Your task to perform on an android device: uninstall "DuckDuckGo Privacy Browser" Image 0: 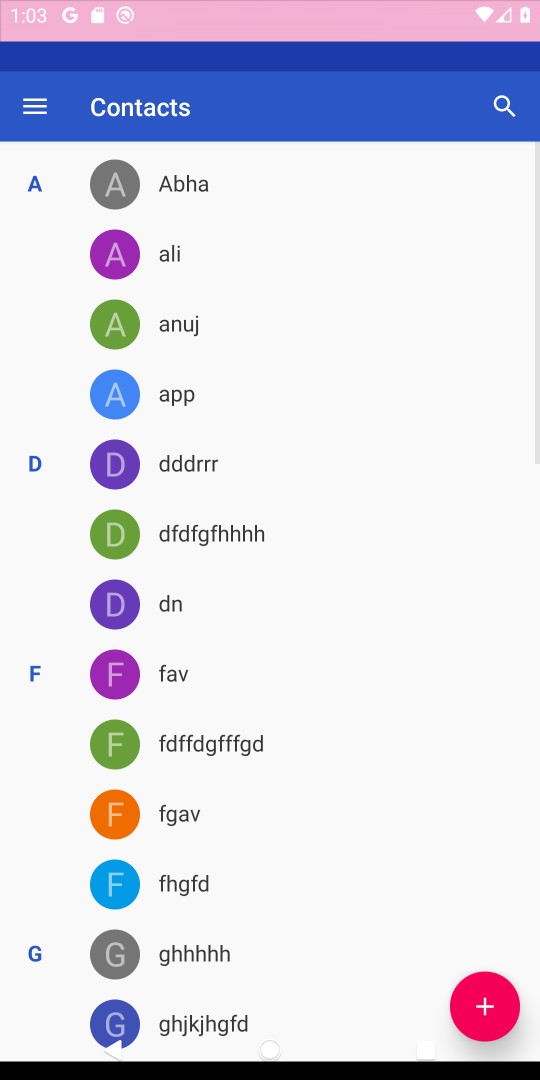
Step 0: press home button
Your task to perform on an android device: uninstall "DuckDuckGo Privacy Browser" Image 1: 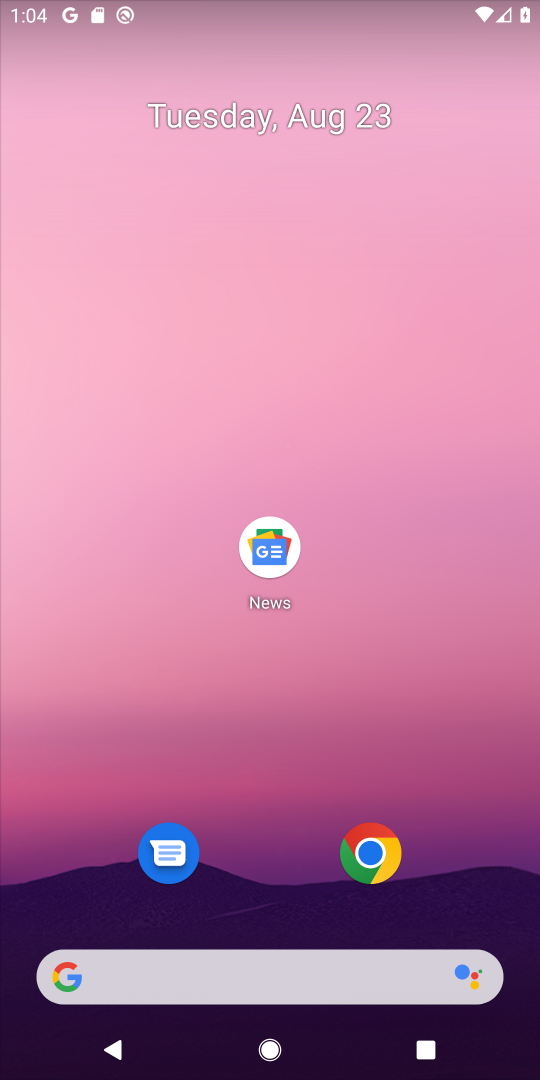
Step 1: click (292, 124)
Your task to perform on an android device: uninstall "DuckDuckGo Privacy Browser" Image 2: 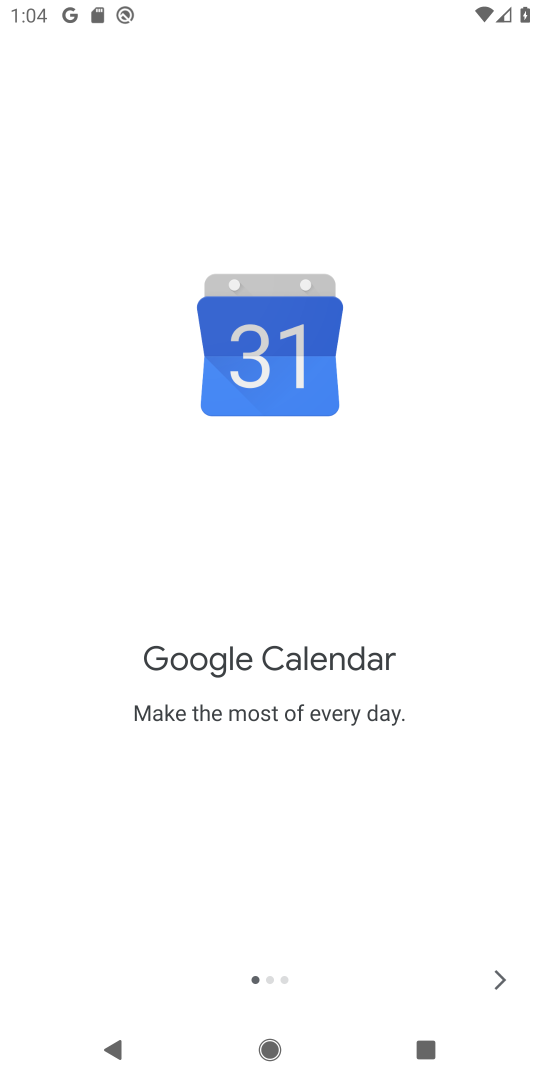
Step 2: press home button
Your task to perform on an android device: uninstall "DuckDuckGo Privacy Browser" Image 3: 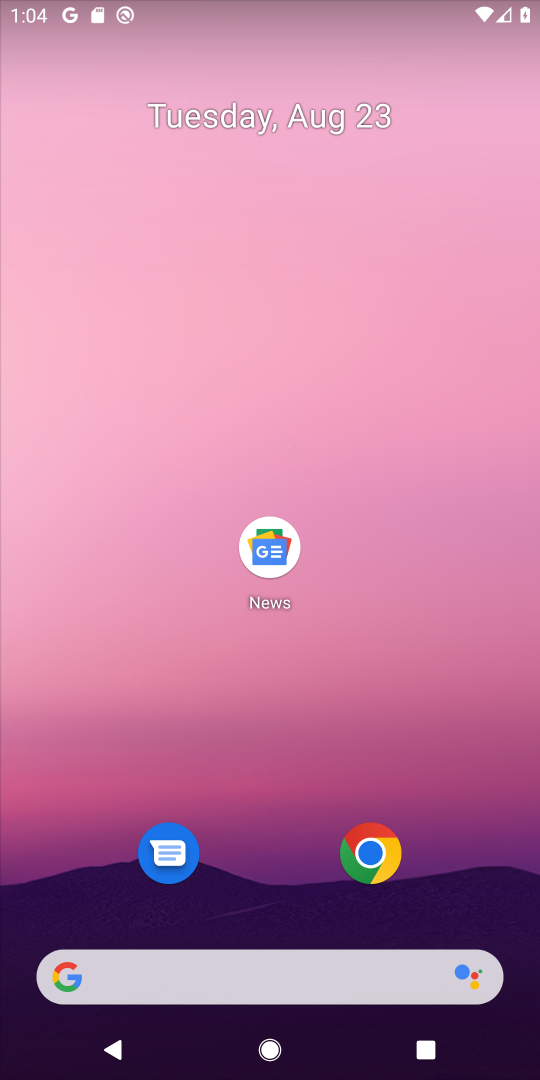
Step 3: drag from (504, 929) to (389, 81)
Your task to perform on an android device: uninstall "DuckDuckGo Privacy Browser" Image 4: 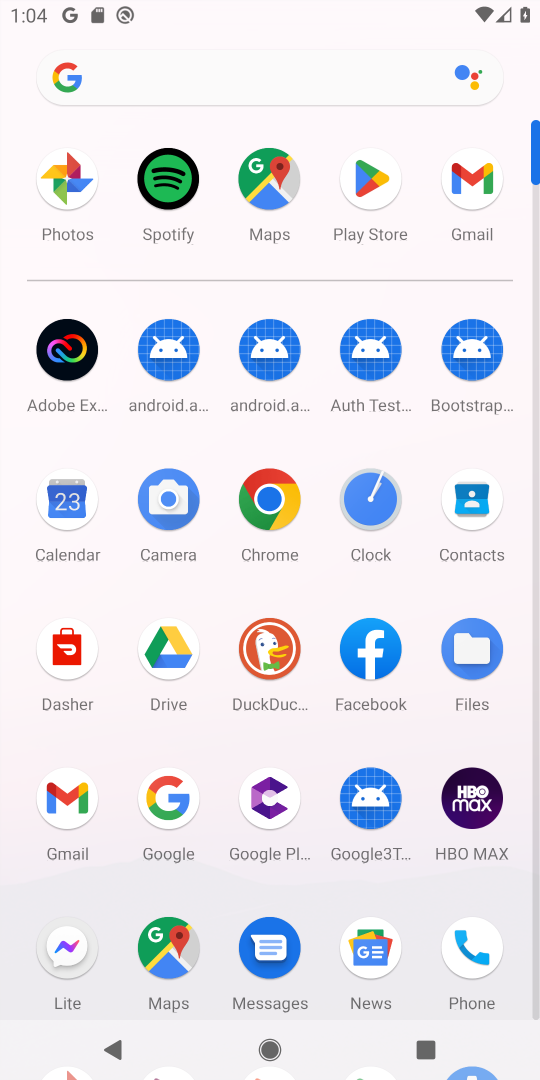
Step 4: drag from (317, 895) to (309, 424)
Your task to perform on an android device: uninstall "DuckDuckGo Privacy Browser" Image 5: 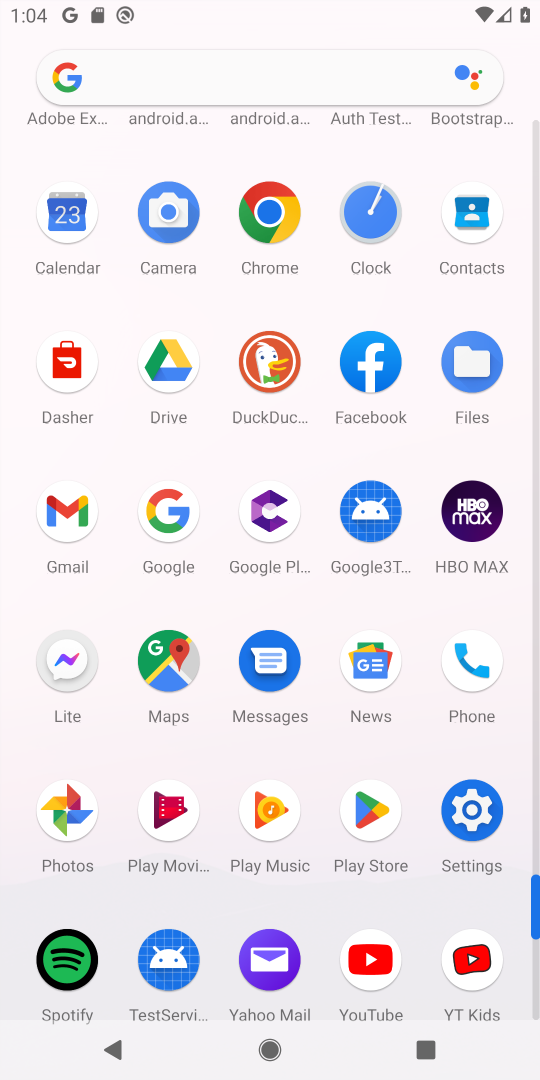
Step 5: drag from (319, 885) to (302, 514)
Your task to perform on an android device: uninstall "DuckDuckGo Privacy Browser" Image 6: 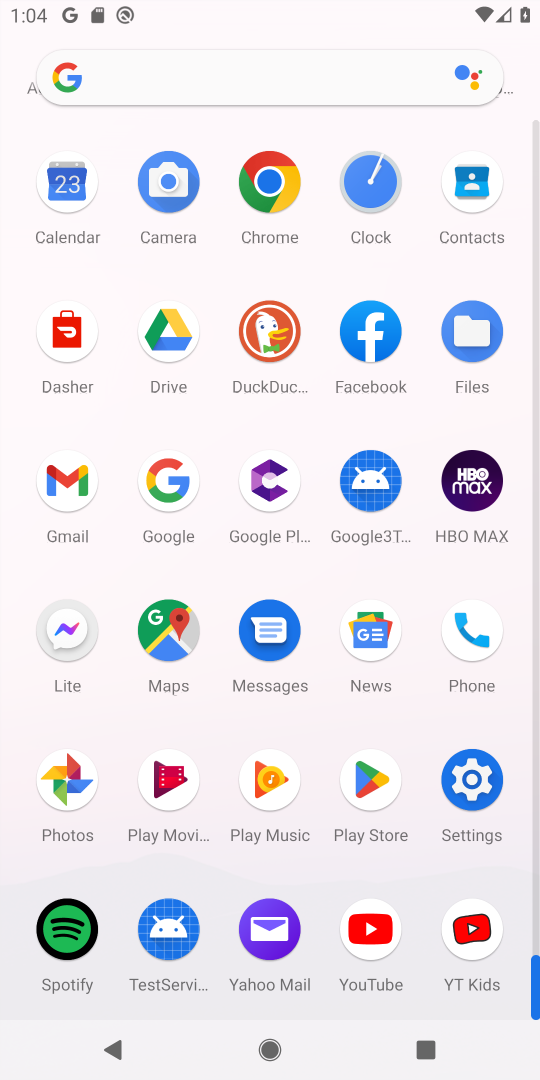
Step 6: click (371, 781)
Your task to perform on an android device: uninstall "DuckDuckGo Privacy Browser" Image 7: 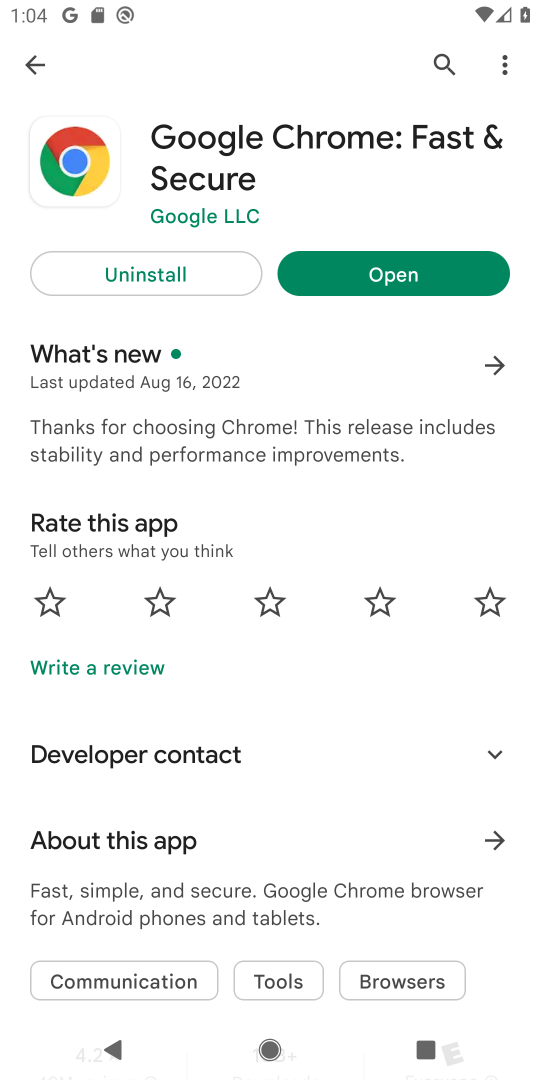
Step 7: click (438, 61)
Your task to perform on an android device: uninstall "DuckDuckGo Privacy Browser" Image 8: 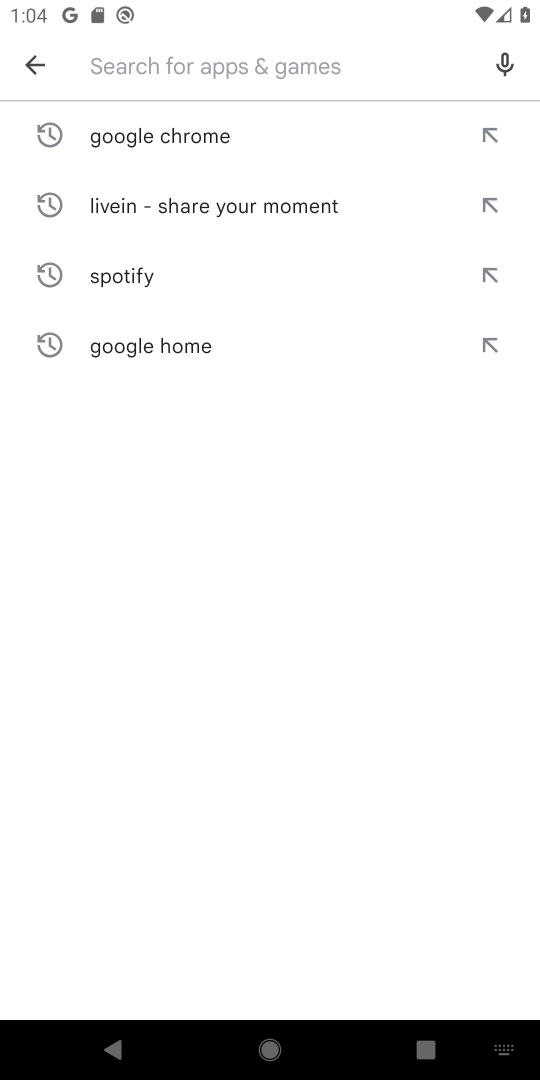
Step 8: type "DuckDuckGo Privacy Browser"
Your task to perform on an android device: uninstall "DuckDuckGo Privacy Browser" Image 9: 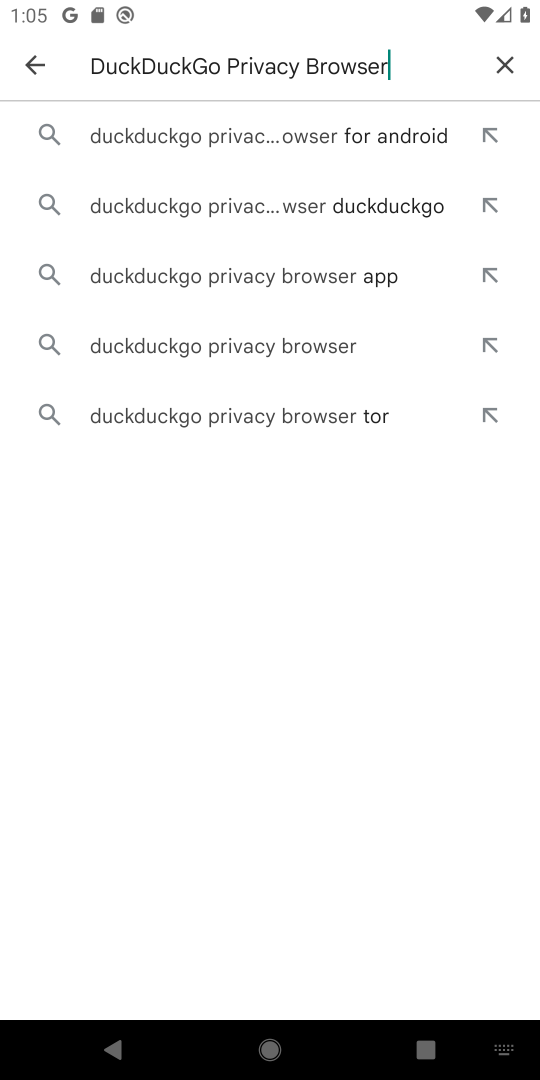
Step 9: click (177, 132)
Your task to perform on an android device: uninstall "DuckDuckGo Privacy Browser" Image 10: 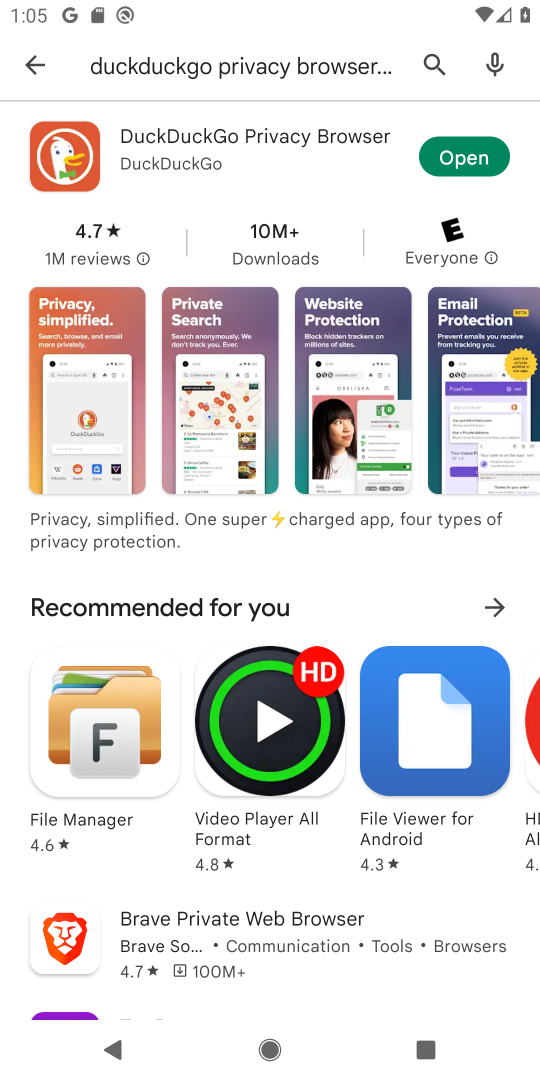
Step 10: click (190, 143)
Your task to perform on an android device: uninstall "DuckDuckGo Privacy Browser" Image 11: 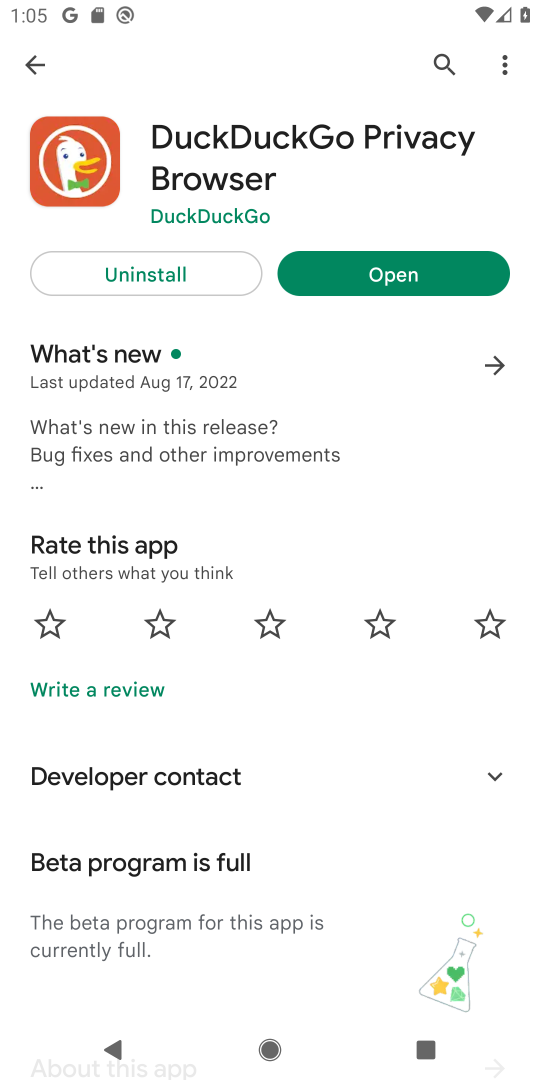
Step 11: click (141, 275)
Your task to perform on an android device: uninstall "DuckDuckGo Privacy Browser" Image 12: 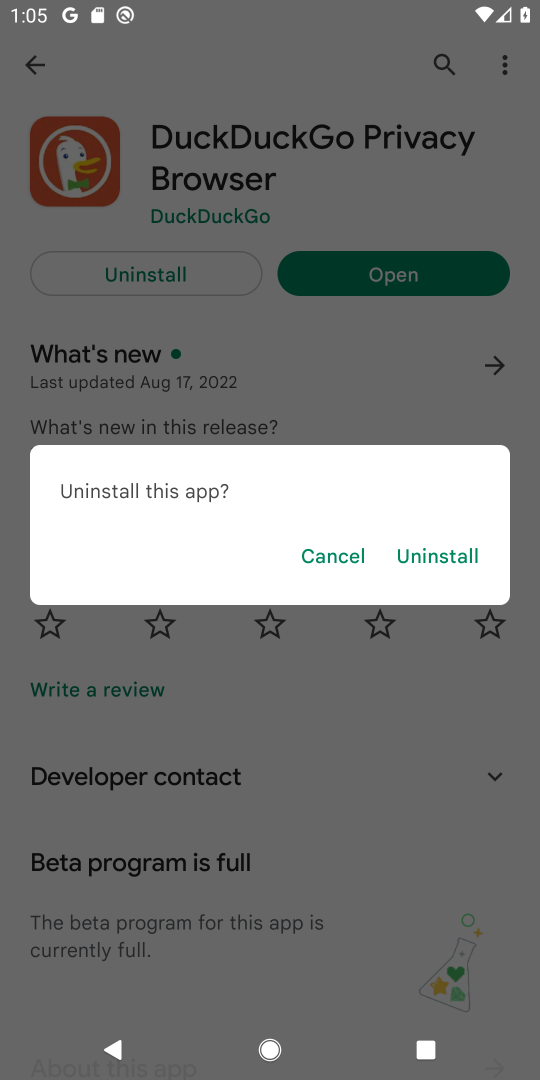
Step 12: click (433, 552)
Your task to perform on an android device: uninstall "DuckDuckGo Privacy Browser" Image 13: 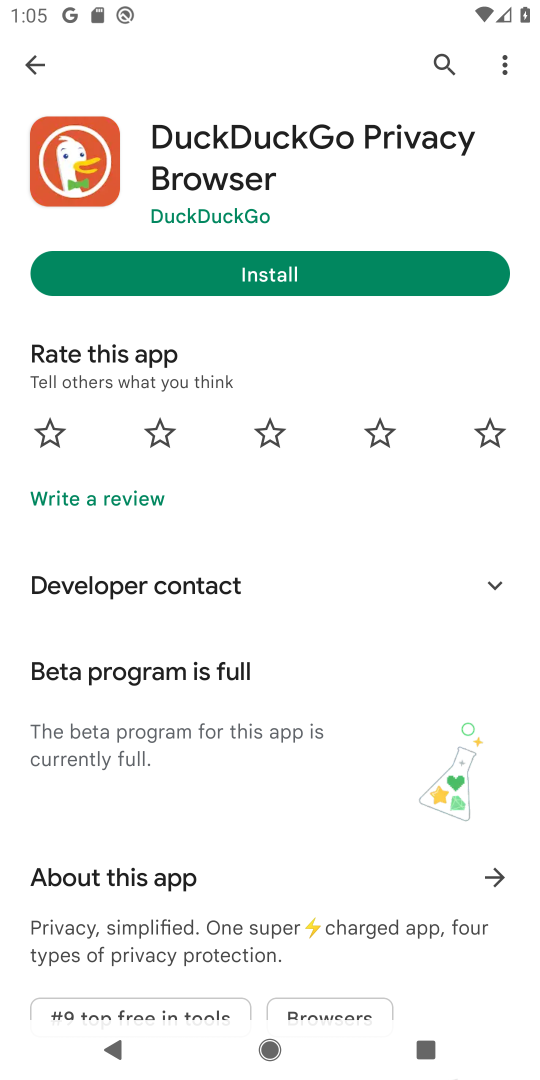
Step 13: task complete